Your task to perform on an android device: open sync settings in chrome Image 0: 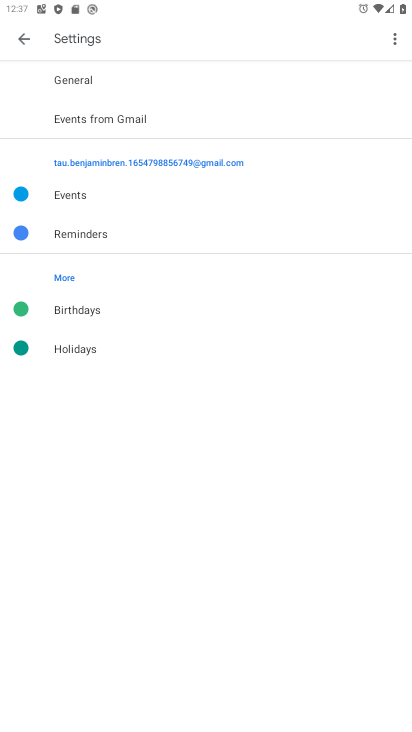
Step 0: press home button
Your task to perform on an android device: open sync settings in chrome Image 1: 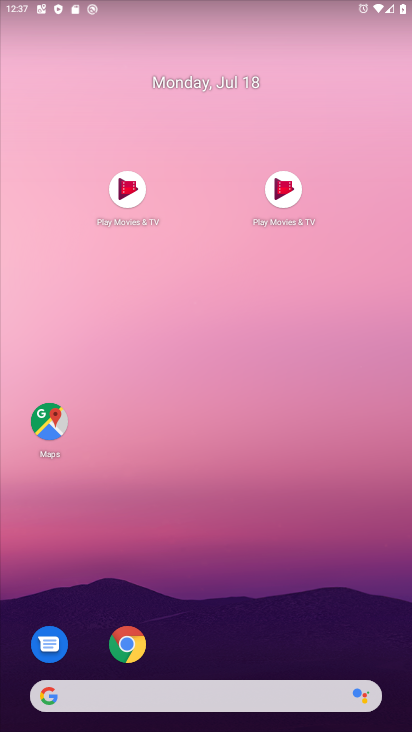
Step 1: drag from (340, 620) to (284, 139)
Your task to perform on an android device: open sync settings in chrome Image 2: 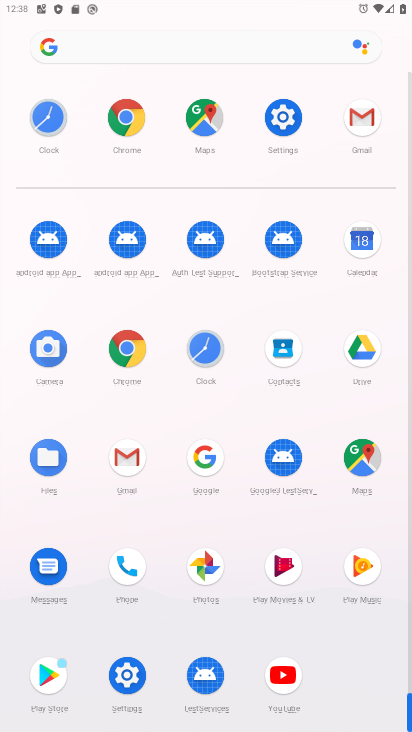
Step 2: click (127, 346)
Your task to perform on an android device: open sync settings in chrome Image 3: 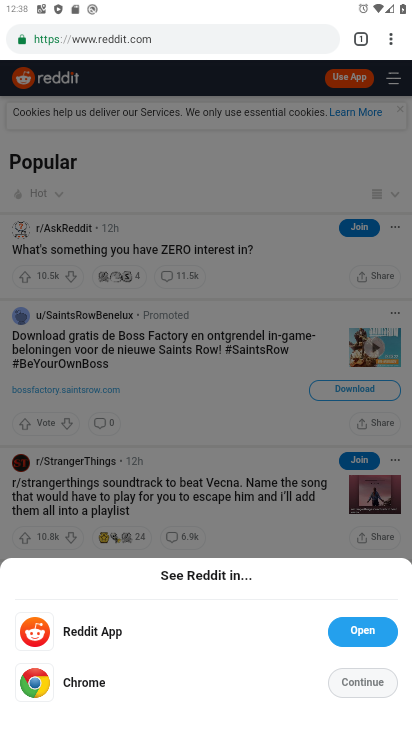
Step 3: drag from (393, 38) to (276, 480)
Your task to perform on an android device: open sync settings in chrome Image 4: 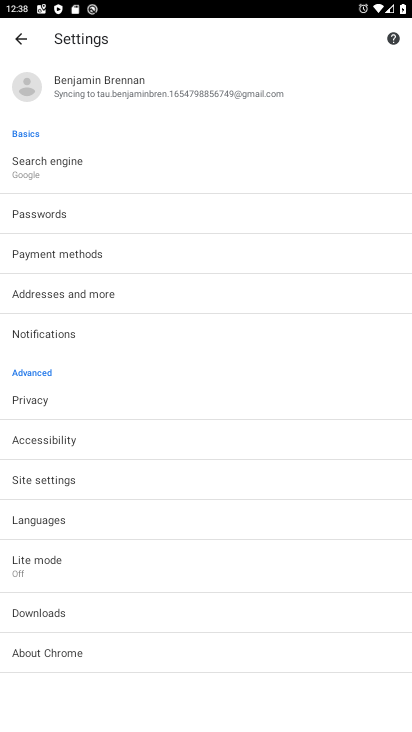
Step 4: click (175, 85)
Your task to perform on an android device: open sync settings in chrome Image 5: 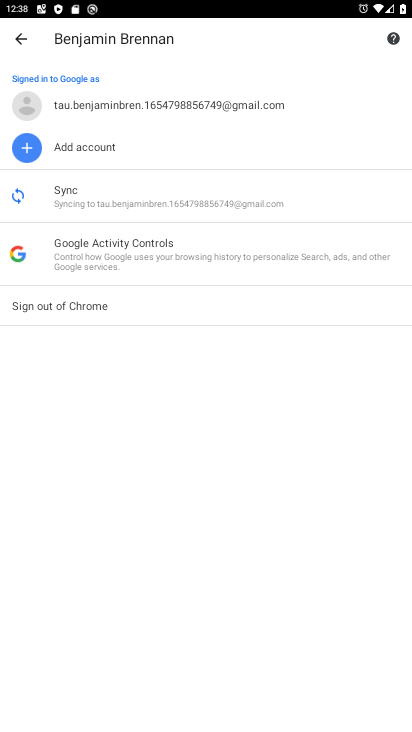
Step 5: click (89, 188)
Your task to perform on an android device: open sync settings in chrome Image 6: 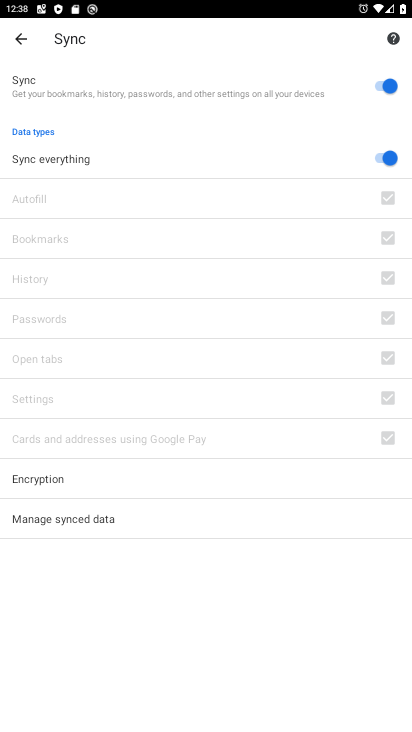
Step 6: task complete